Your task to perform on an android device: turn smart compose on in the gmail app Image 0: 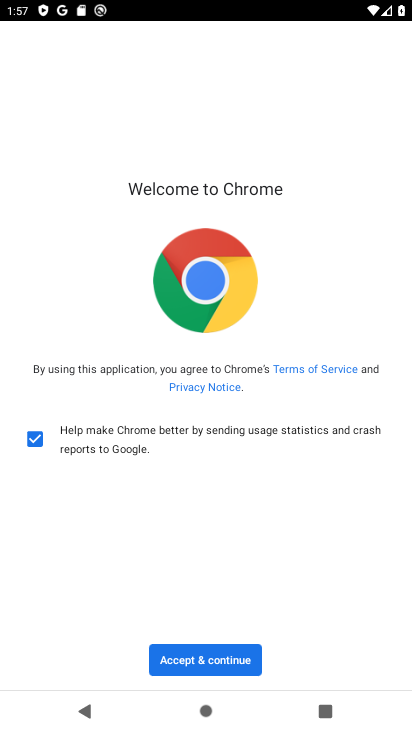
Step 0: press home button
Your task to perform on an android device: turn smart compose on in the gmail app Image 1: 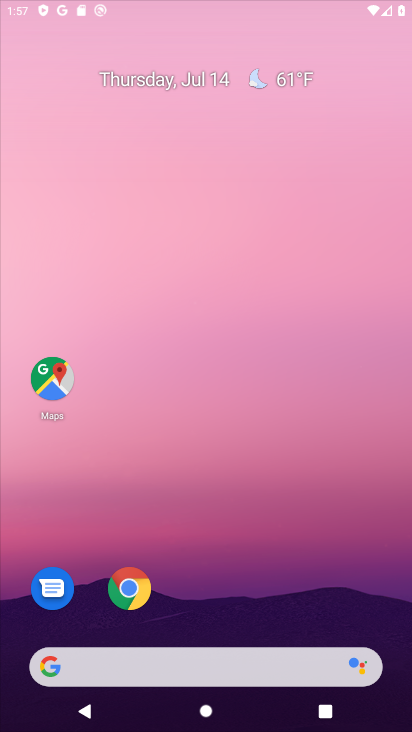
Step 1: drag from (206, 602) to (261, 177)
Your task to perform on an android device: turn smart compose on in the gmail app Image 2: 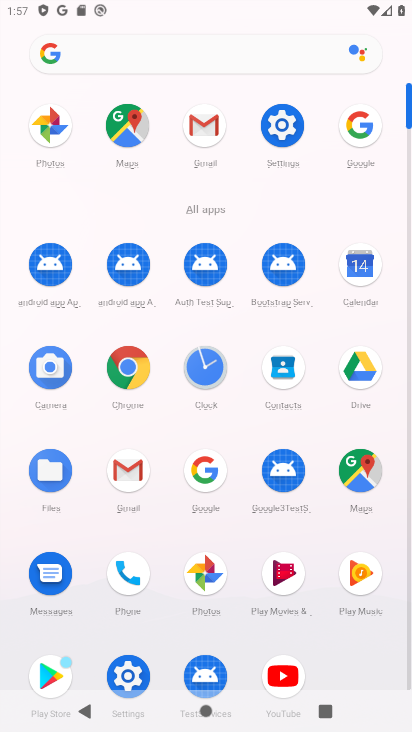
Step 2: click (204, 129)
Your task to perform on an android device: turn smart compose on in the gmail app Image 3: 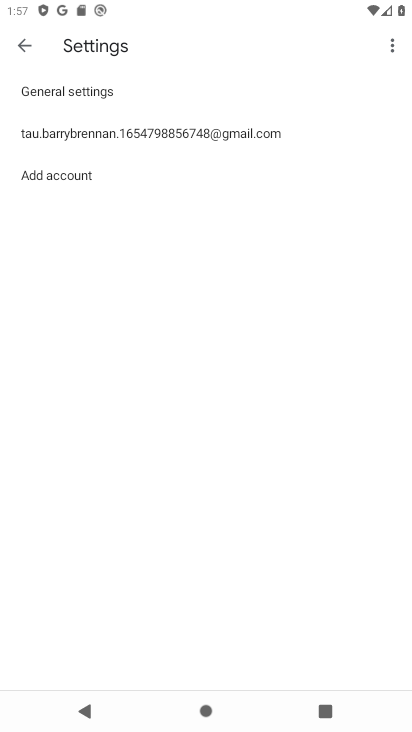
Step 3: click (120, 135)
Your task to perform on an android device: turn smart compose on in the gmail app Image 4: 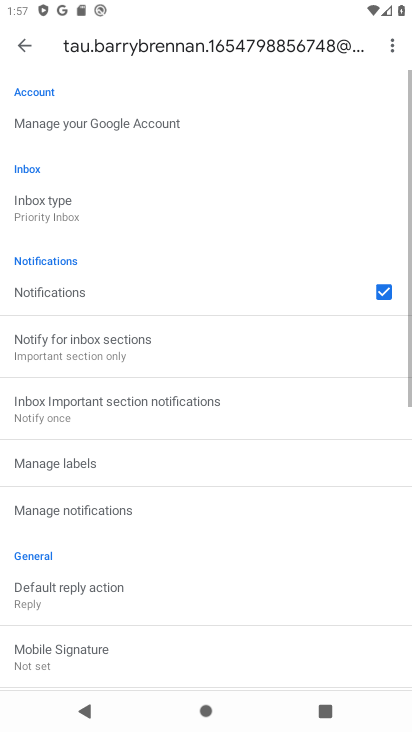
Step 4: task complete